Your task to perform on an android device: Search for flights from NYC to San Francisco Image 0: 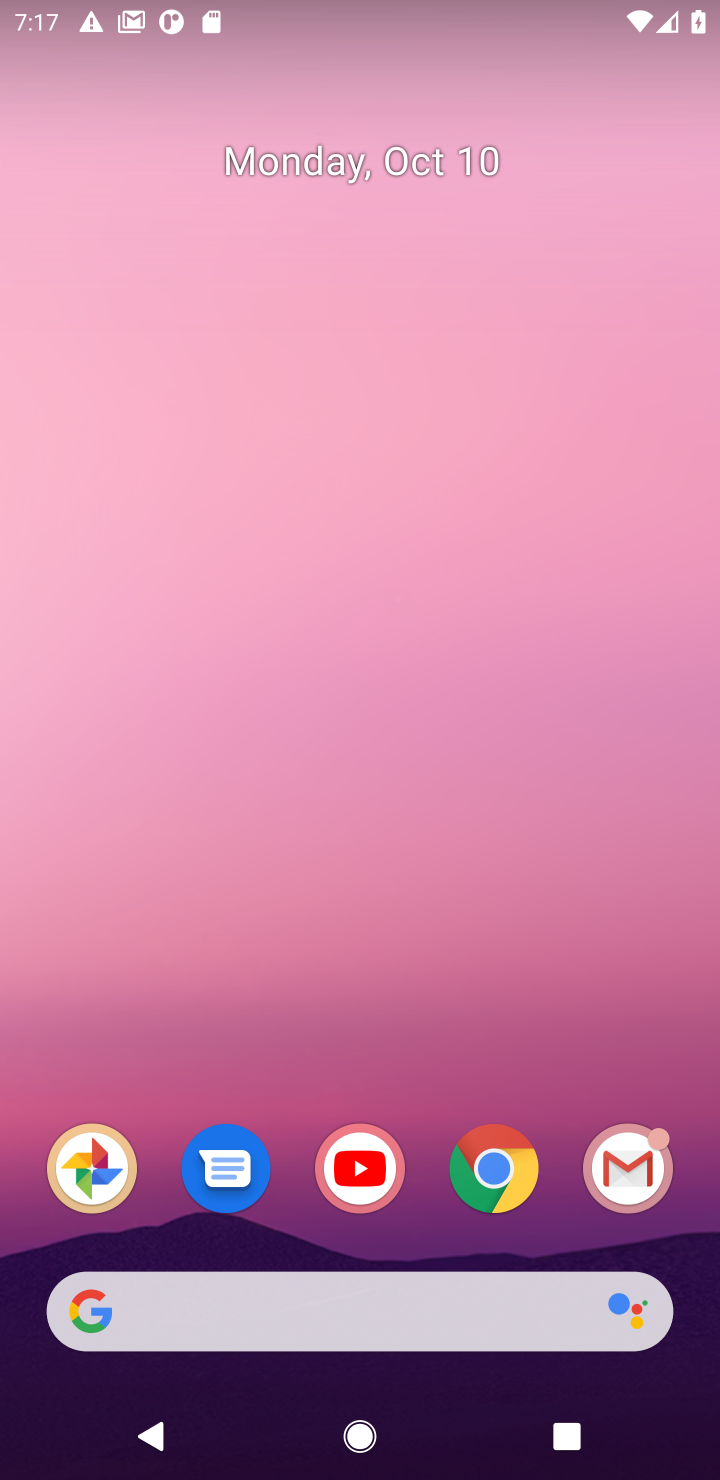
Step 0: click (491, 1177)
Your task to perform on an android device: Search for flights from NYC to San Francisco Image 1: 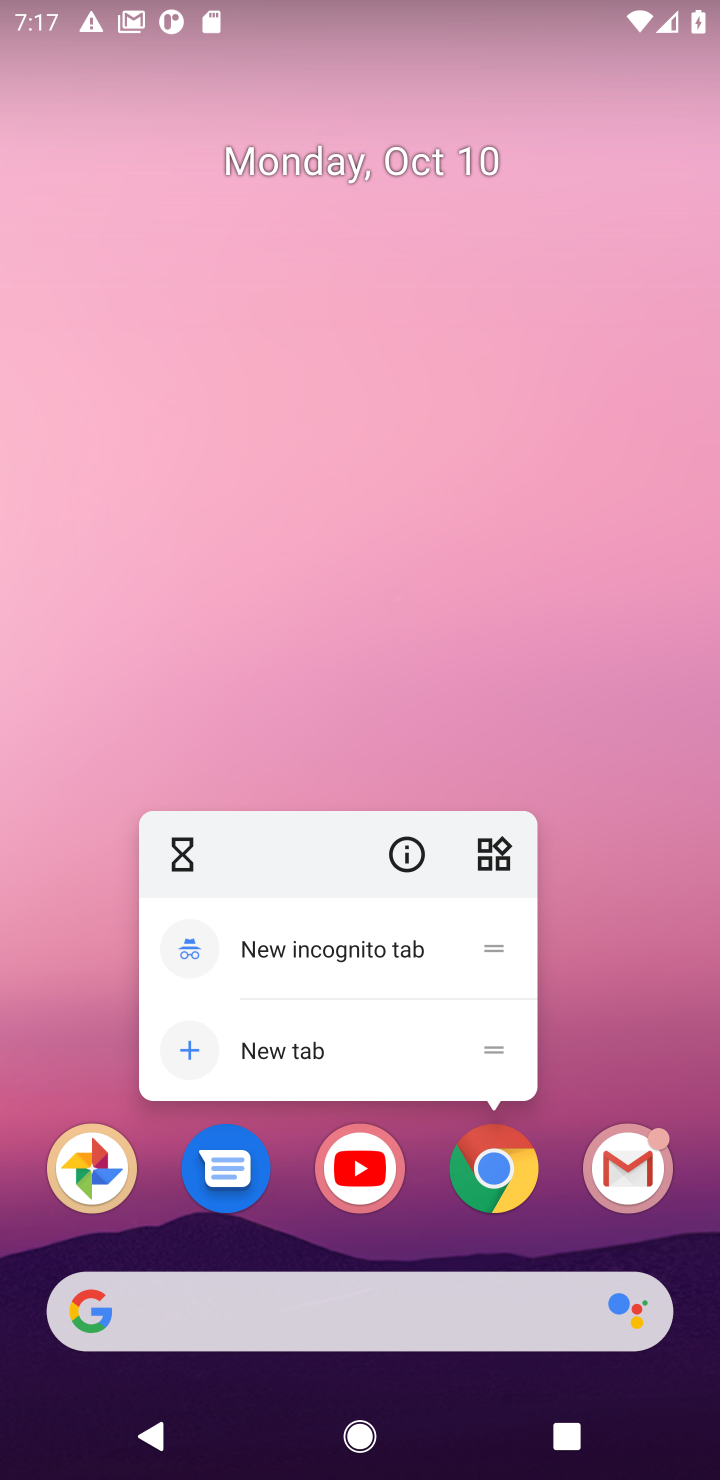
Step 1: click (493, 1177)
Your task to perform on an android device: Search for flights from NYC to San Francisco Image 2: 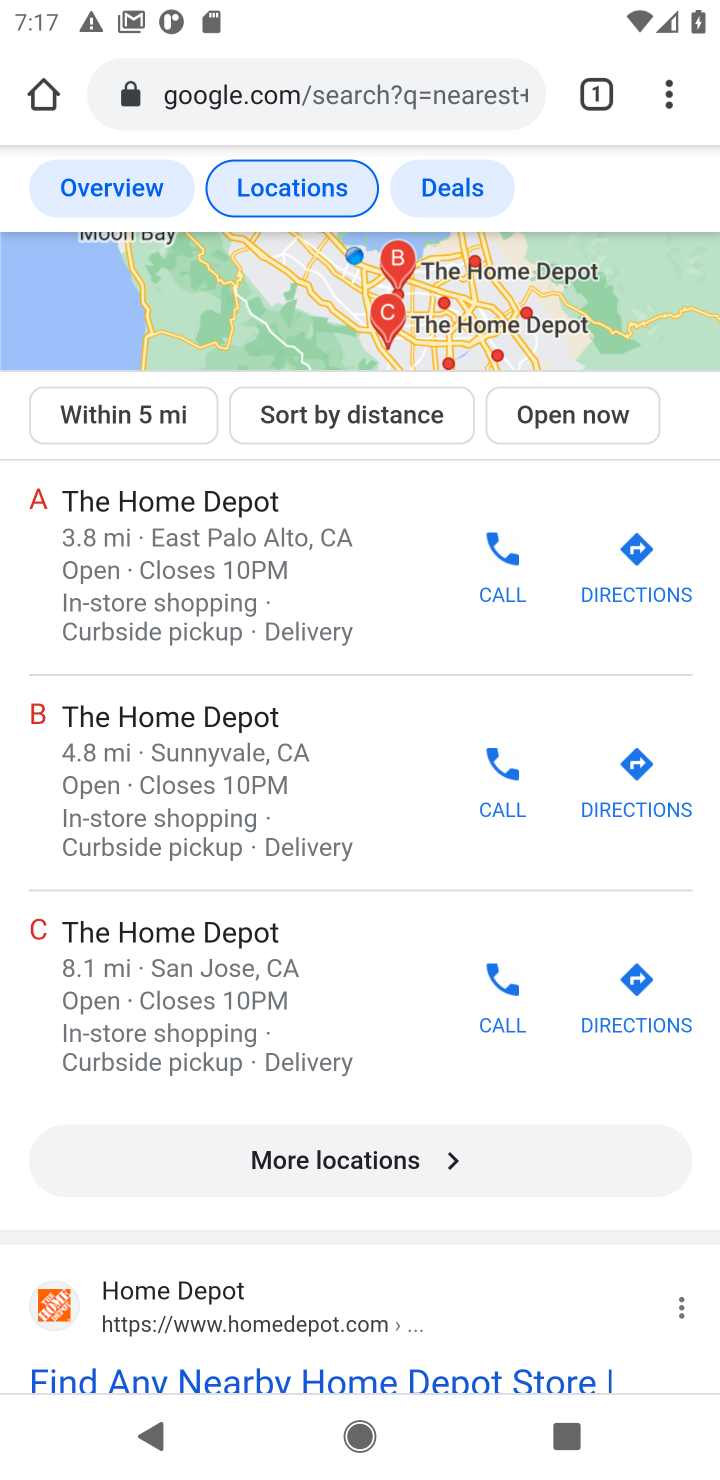
Step 2: click (300, 94)
Your task to perform on an android device: Search for flights from NYC to San Francisco Image 3: 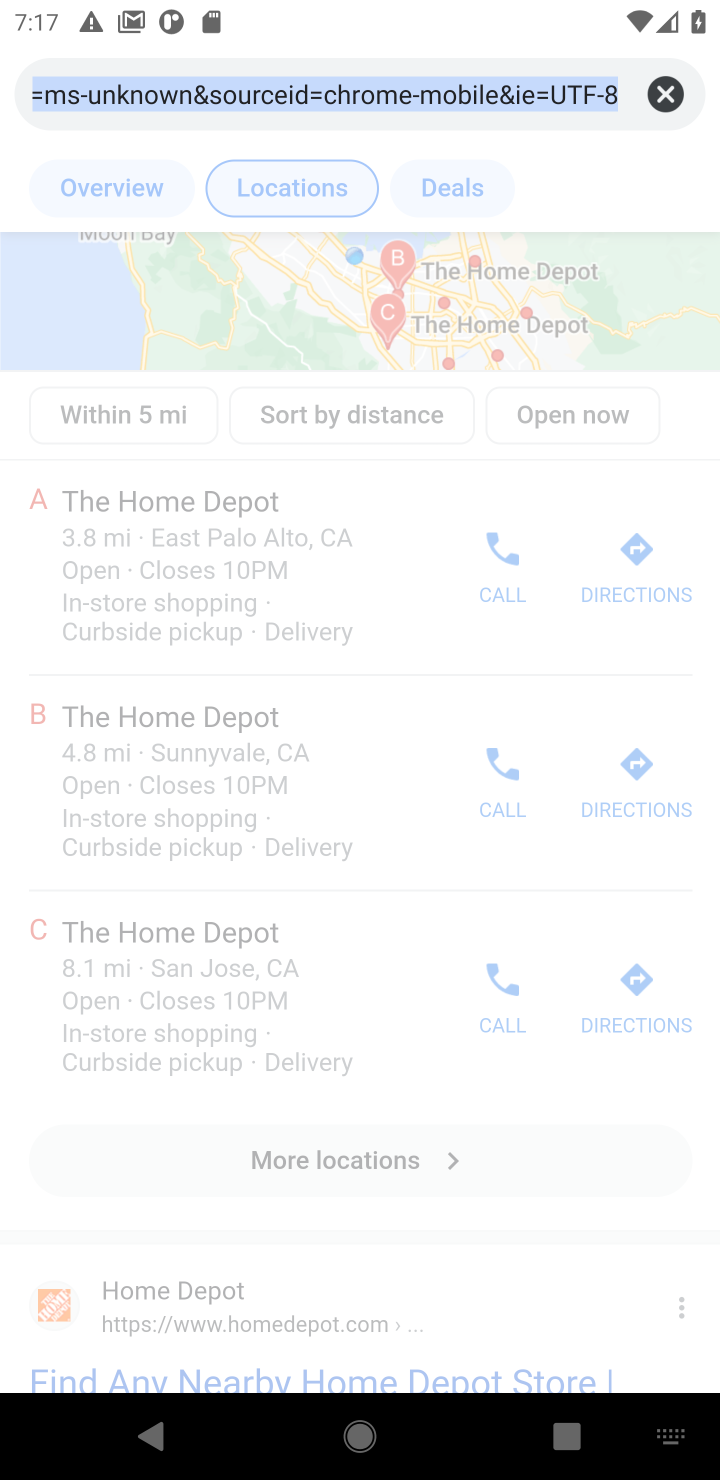
Step 3: click (662, 99)
Your task to perform on an android device: Search for flights from NYC to San Francisco Image 4: 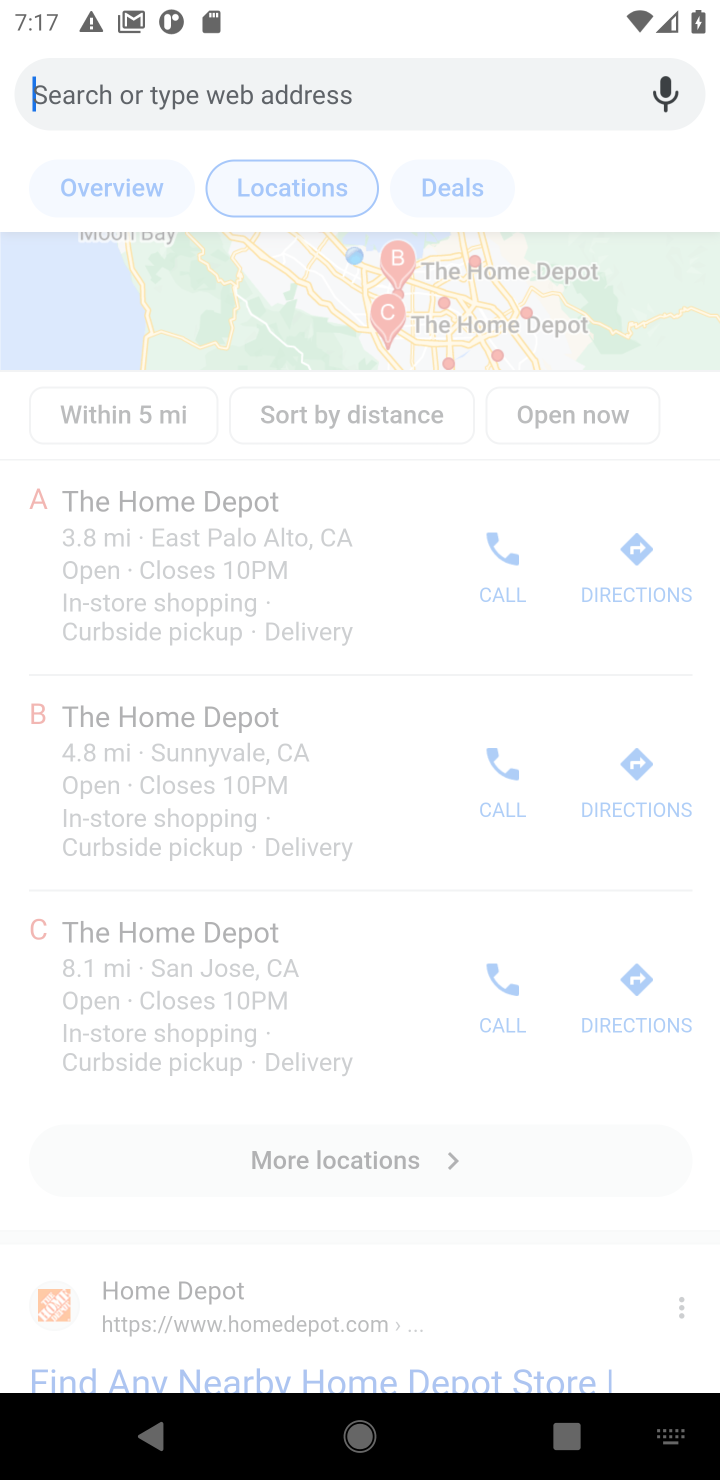
Step 4: type "nyc to san francisco flights "
Your task to perform on an android device: Search for flights from NYC to San Francisco Image 5: 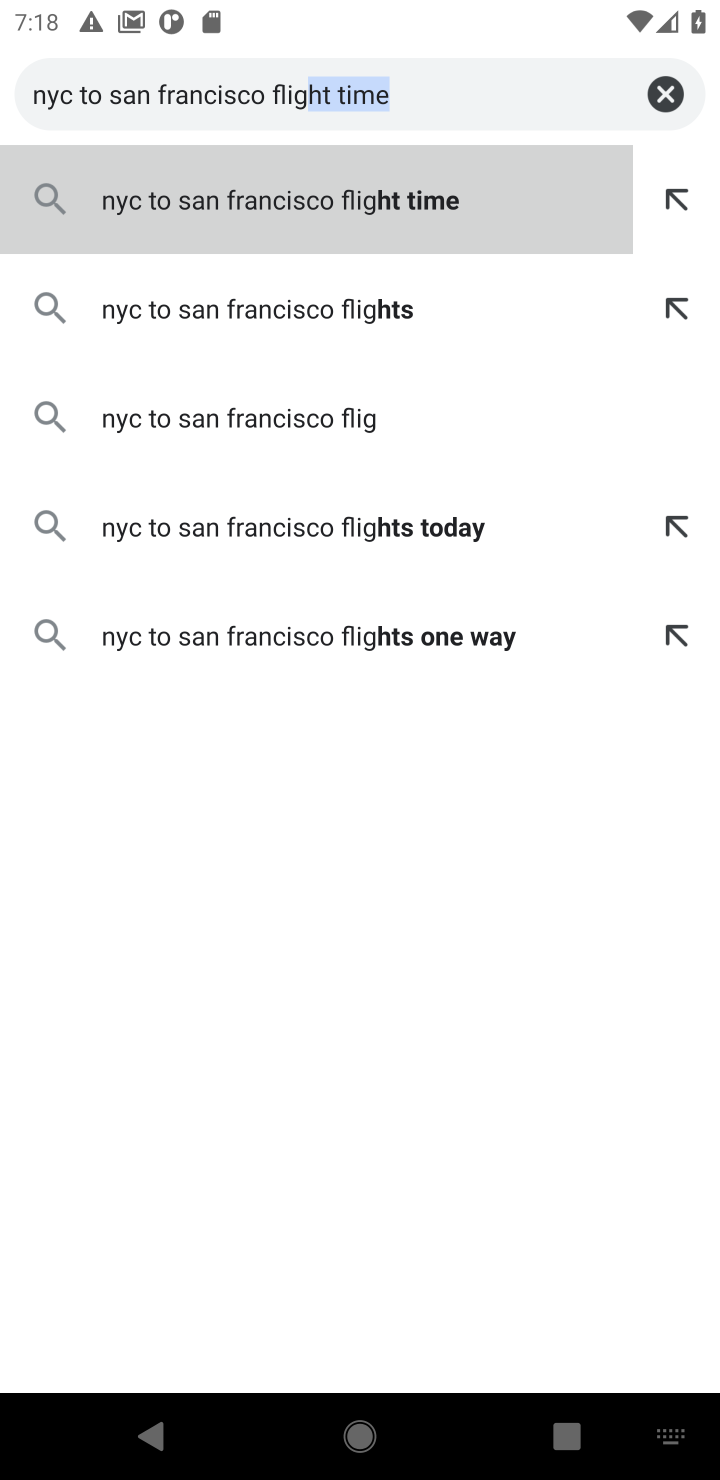
Step 5: click (297, 308)
Your task to perform on an android device: Search for flights from NYC to San Francisco Image 6: 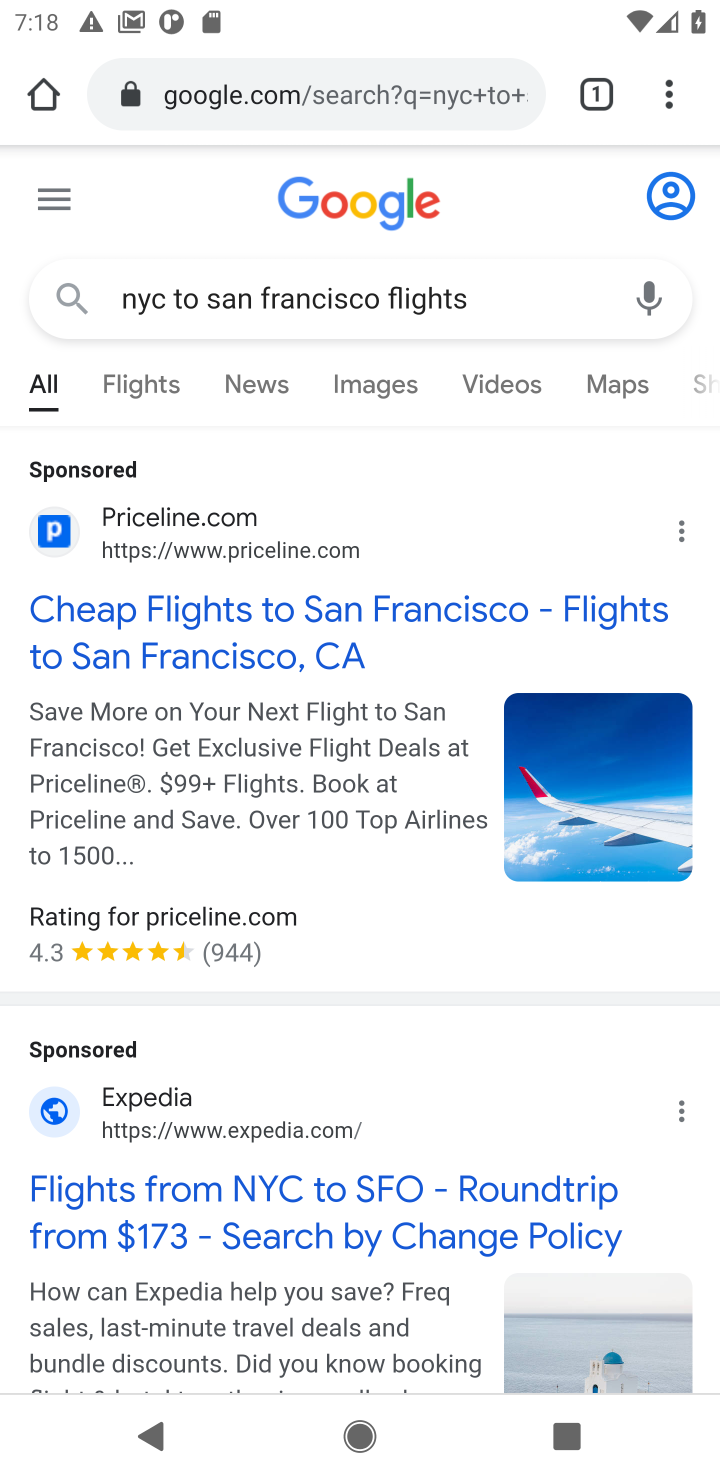
Step 6: click (134, 386)
Your task to perform on an android device: Search for flights from NYC to San Francisco Image 7: 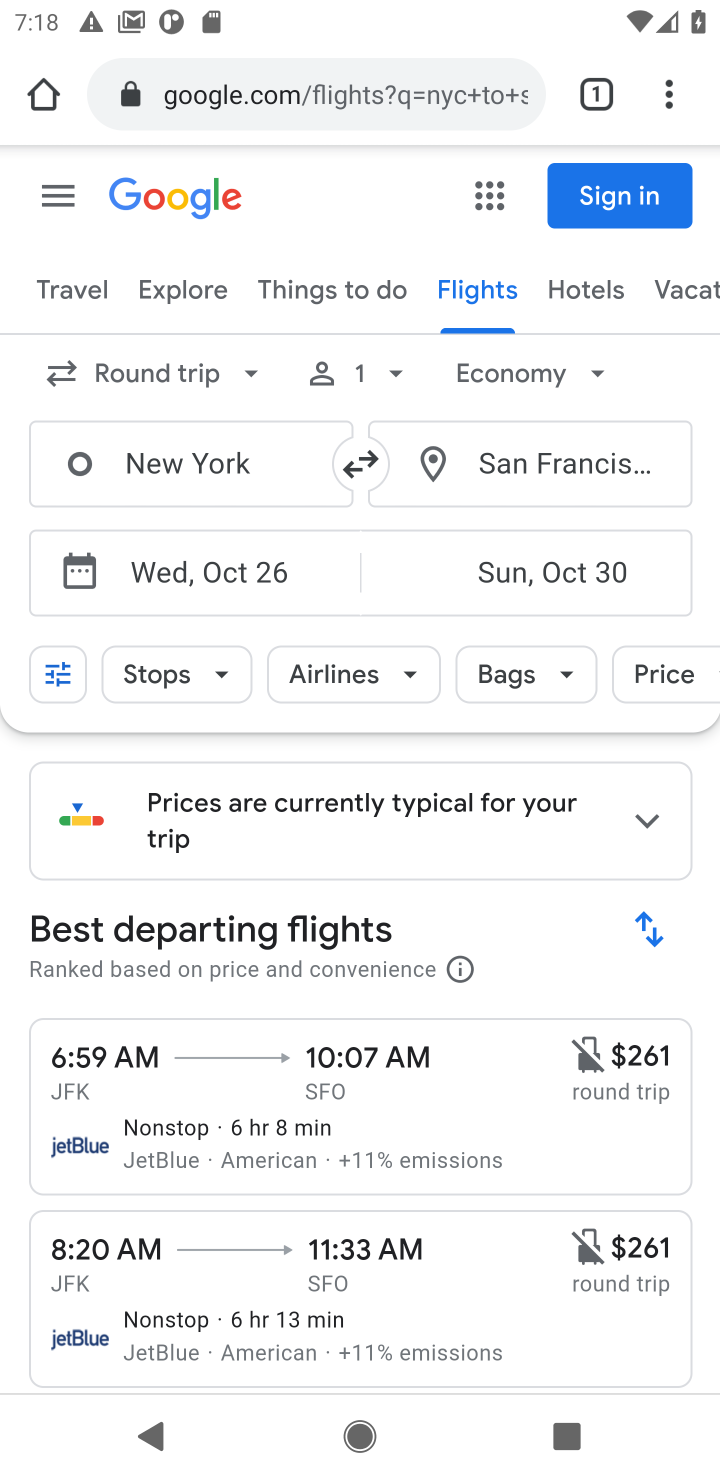
Step 7: task complete